Your task to perform on an android device: delete location history Image 0: 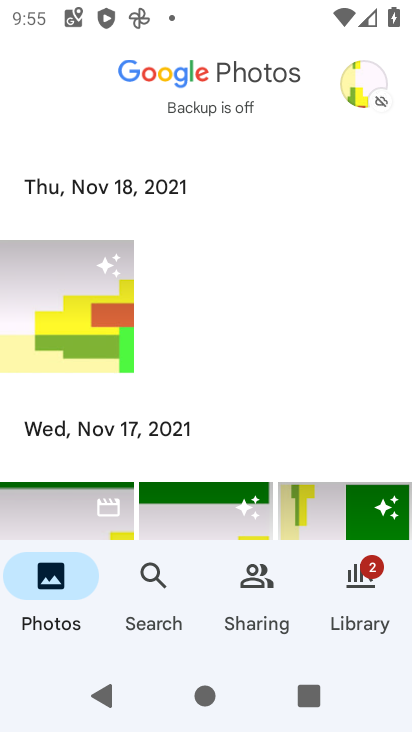
Step 0: press home button
Your task to perform on an android device: delete location history Image 1: 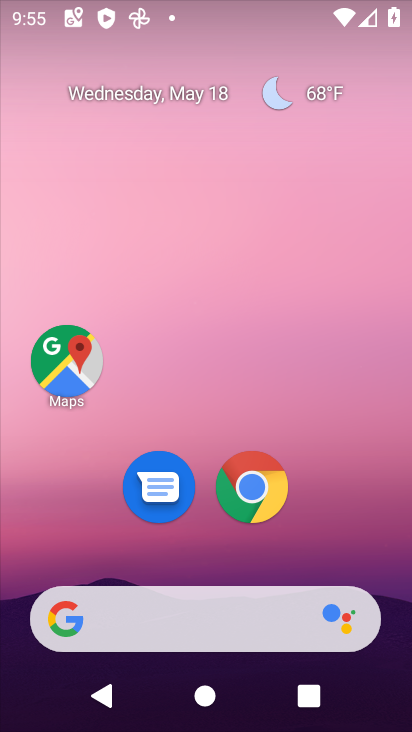
Step 1: drag from (364, 538) to (321, 107)
Your task to perform on an android device: delete location history Image 2: 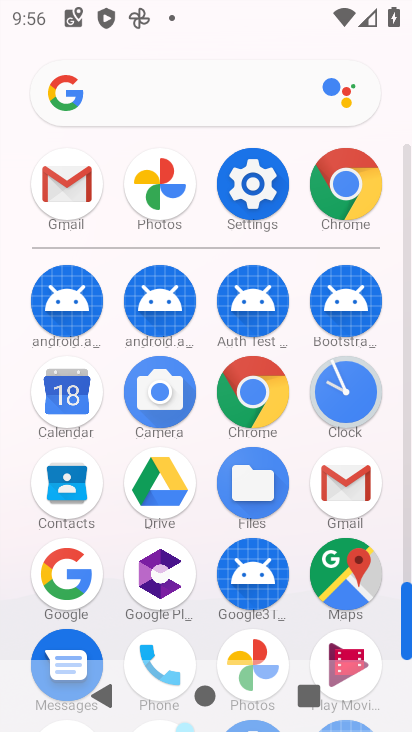
Step 2: click (243, 178)
Your task to perform on an android device: delete location history Image 3: 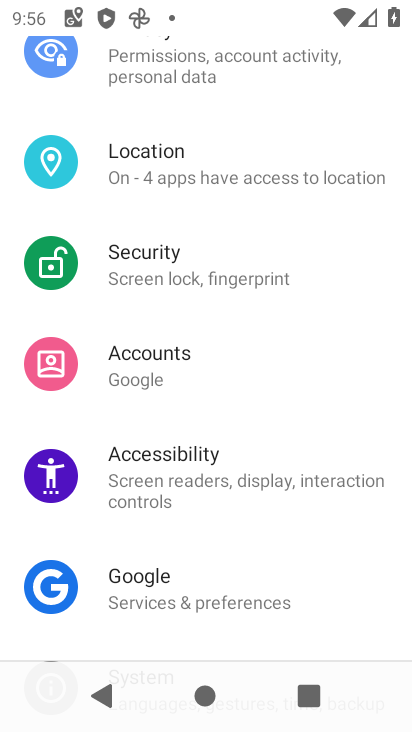
Step 3: click (170, 172)
Your task to perform on an android device: delete location history Image 4: 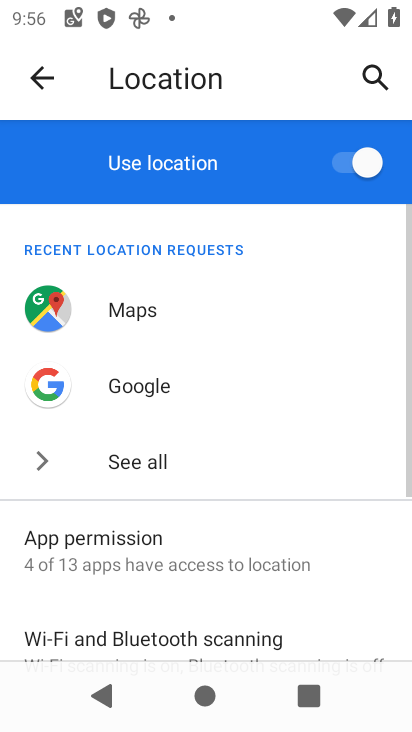
Step 4: drag from (311, 601) to (308, 207)
Your task to perform on an android device: delete location history Image 5: 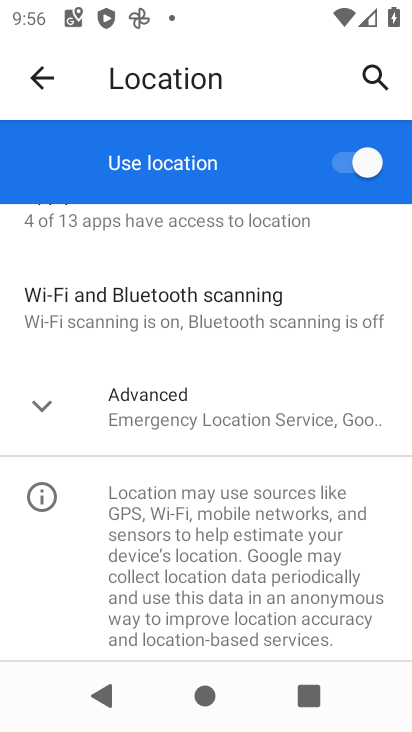
Step 5: drag from (238, 563) to (235, 267)
Your task to perform on an android device: delete location history Image 6: 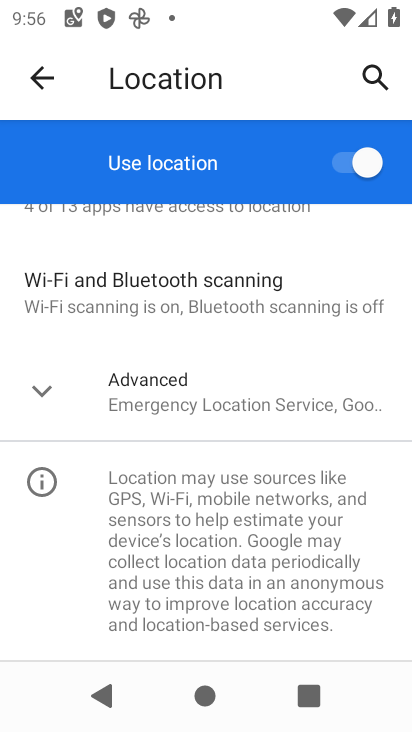
Step 6: click (198, 401)
Your task to perform on an android device: delete location history Image 7: 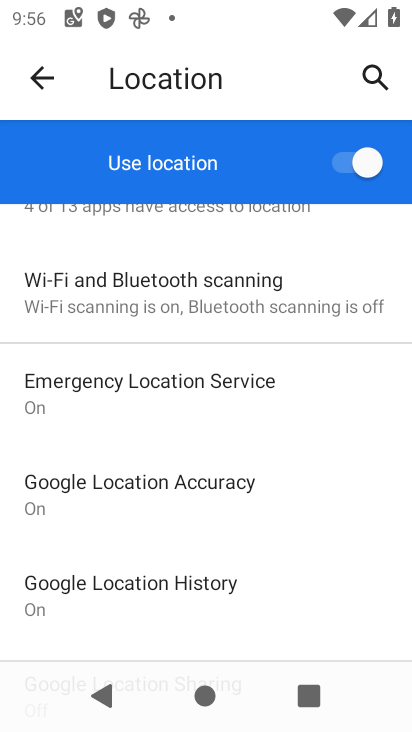
Step 7: click (142, 585)
Your task to perform on an android device: delete location history Image 8: 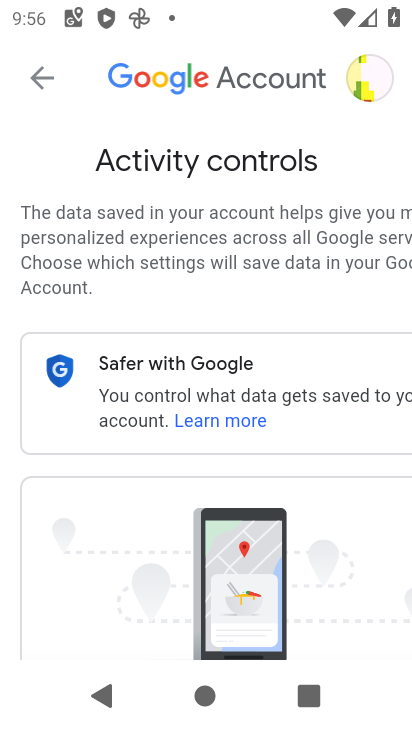
Step 8: drag from (82, 621) to (153, 231)
Your task to perform on an android device: delete location history Image 9: 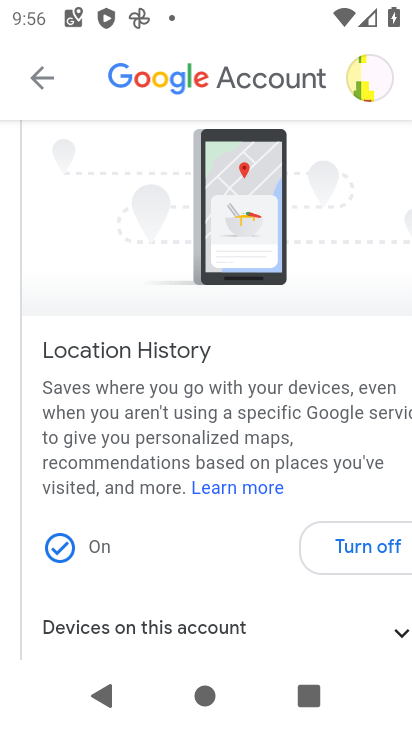
Step 9: drag from (163, 568) to (136, 275)
Your task to perform on an android device: delete location history Image 10: 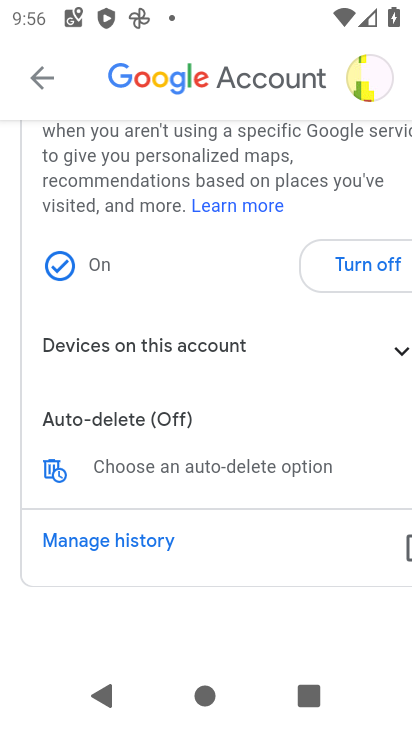
Step 10: click (157, 539)
Your task to perform on an android device: delete location history Image 11: 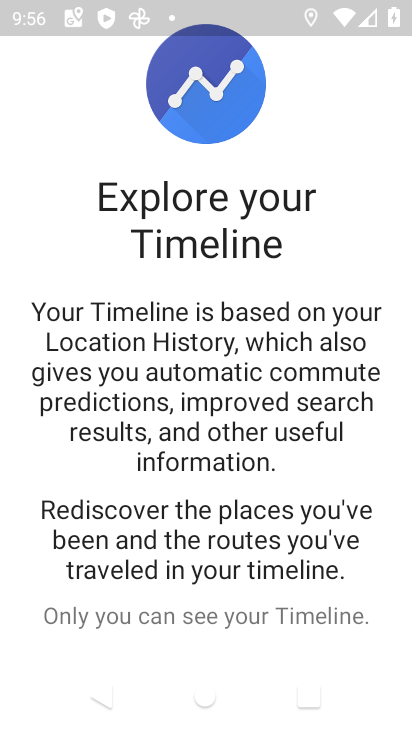
Step 11: drag from (251, 562) to (259, 249)
Your task to perform on an android device: delete location history Image 12: 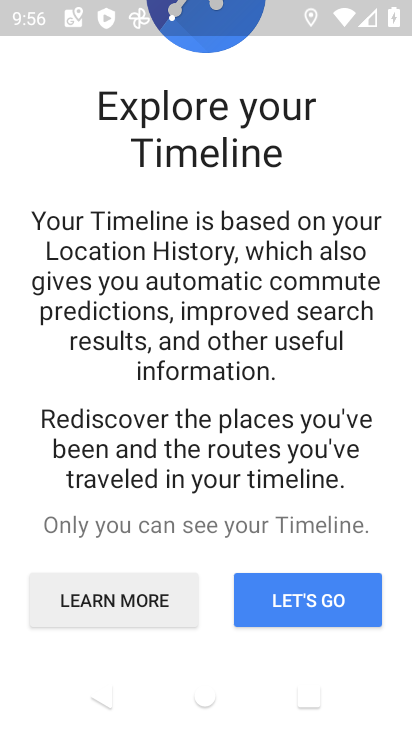
Step 12: click (331, 595)
Your task to perform on an android device: delete location history Image 13: 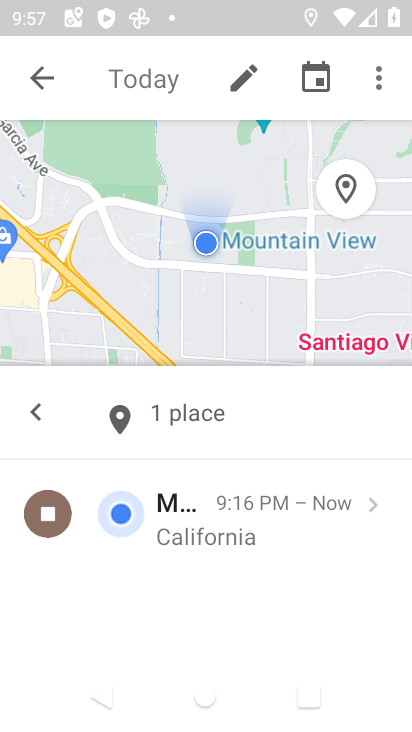
Step 13: drag from (377, 72) to (174, 524)
Your task to perform on an android device: delete location history Image 14: 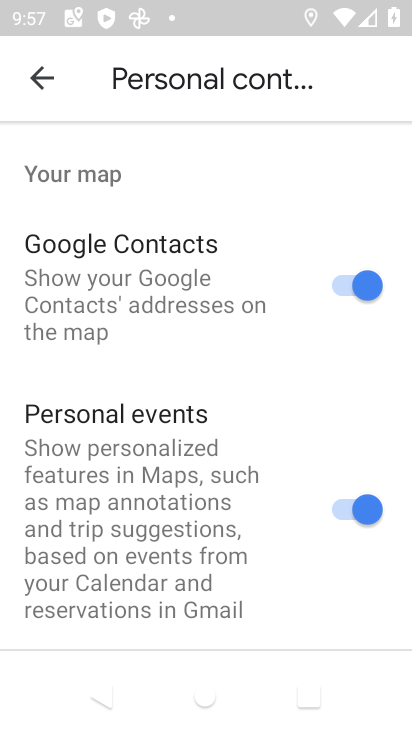
Step 14: drag from (290, 600) to (262, 239)
Your task to perform on an android device: delete location history Image 15: 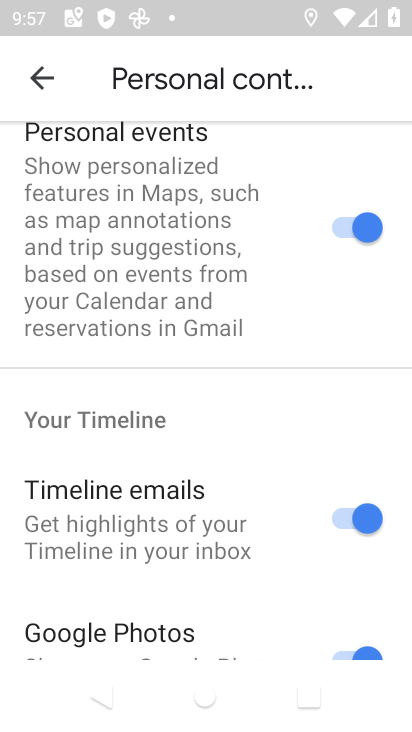
Step 15: drag from (227, 599) to (266, 276)
Your task to perform on an android device: delete location history Image 16: 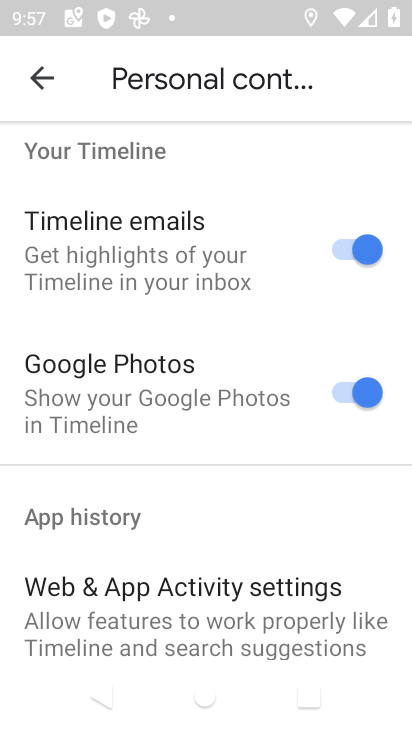
Step 16: drag from (244, 496) to (297, 187)
Your task to perform on an android device: delete location history Image 17: 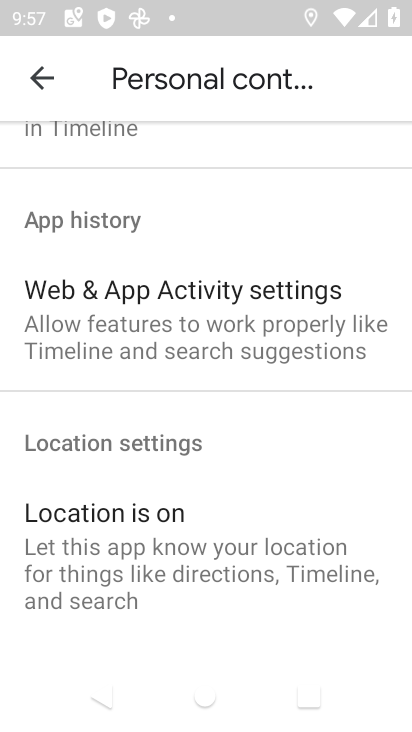
Step 17: drag from (249, 584) to (279, 201)
Your task to perform on an android device: delete location history Image 18: 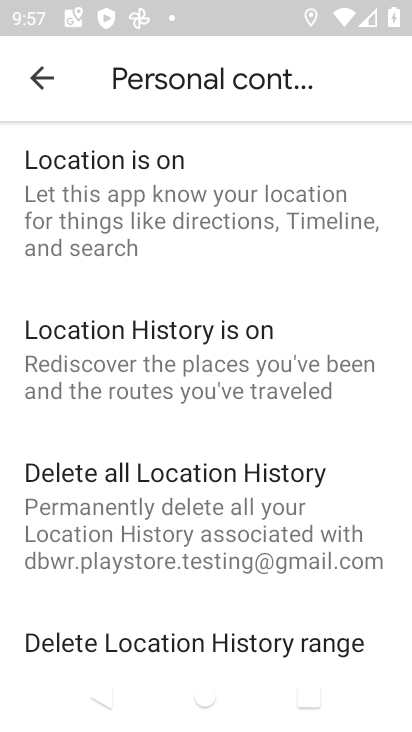
Step 18: click (162, 540)
Your task to perform on an android device: delete location history Image 19: 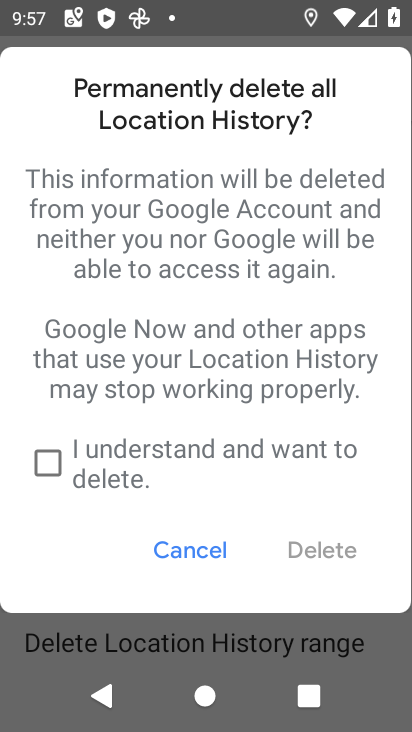
Step 19: click (41, 463)
Your task to perform on an android device: delete location history Image 20: 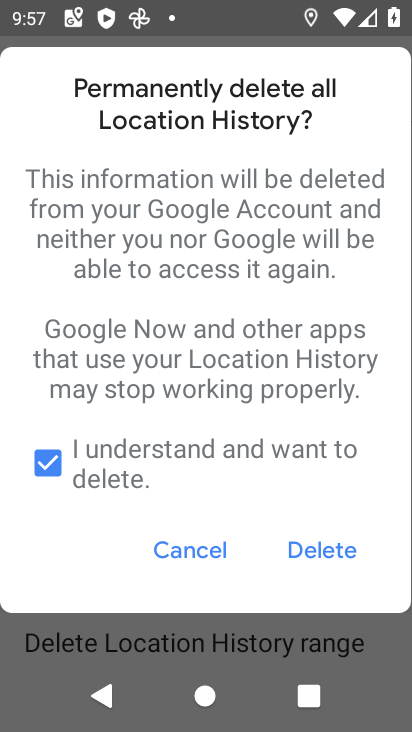
Step 20: click (316, 550)
Your task to perform on an android device: delete location history Image 21: 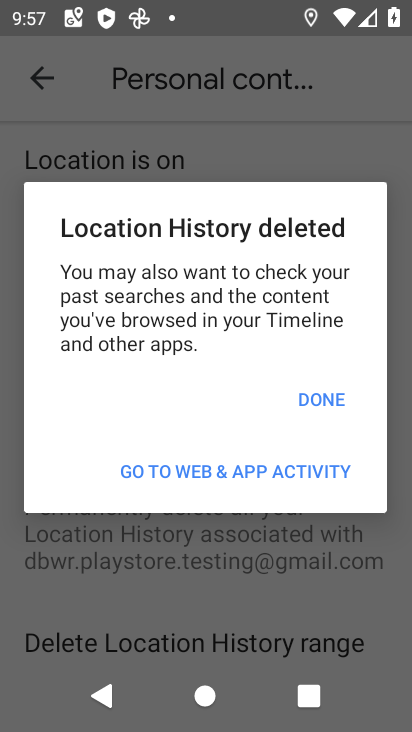
Step 21: click (327, 404)
Your task to perform on an android device: delete location history Image 22: 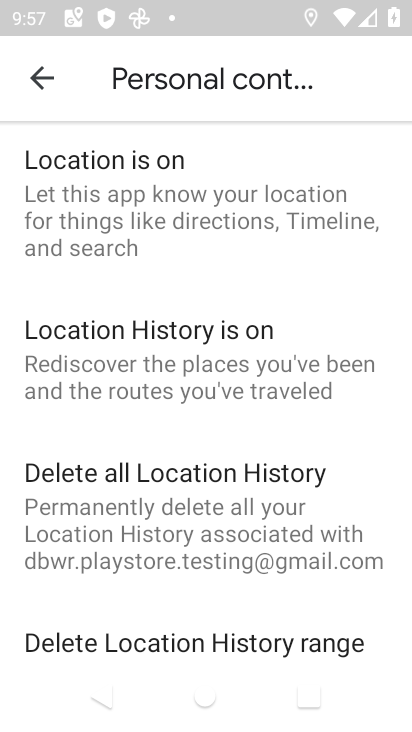
Step 22: task complete